Your task to perform on an android device: Find coffee shops on Maps Image 0: 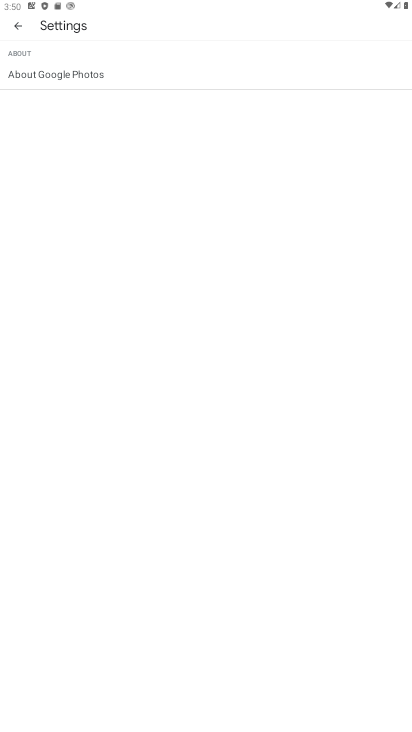
Step 0: press home button
Your task to perform on an android device: Find coffee shops on Maps Image 1: 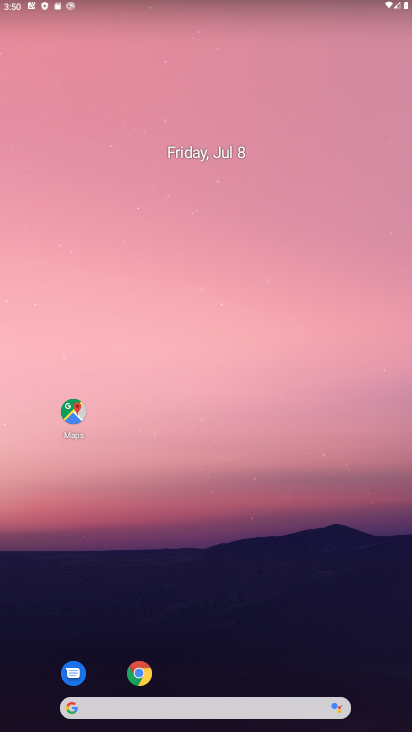
Step 1: click (74, 419)
Your task to perform on an android device: Find coffee shops on Maps Image 2: 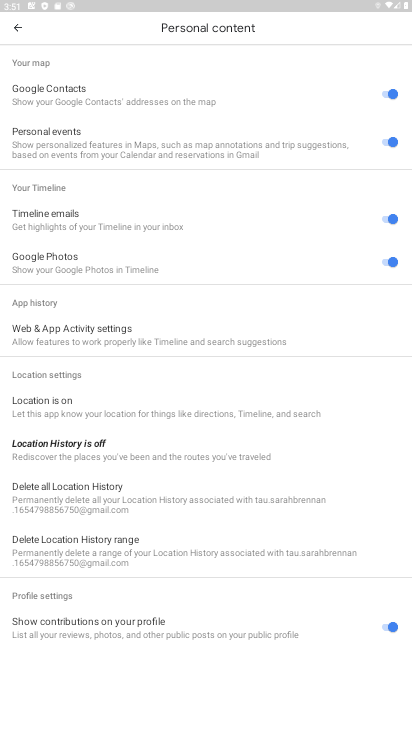
Step 2: click (18, 29)
Your task to perform on an android device: Find coffee shops on Maps Image 3: 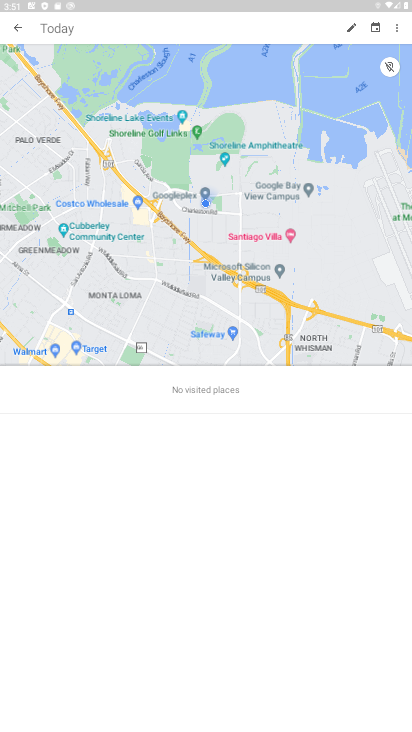
Step 3: click (58, 29)
Your task to perform on an android device: Find coffee shops on Maps Image 4: 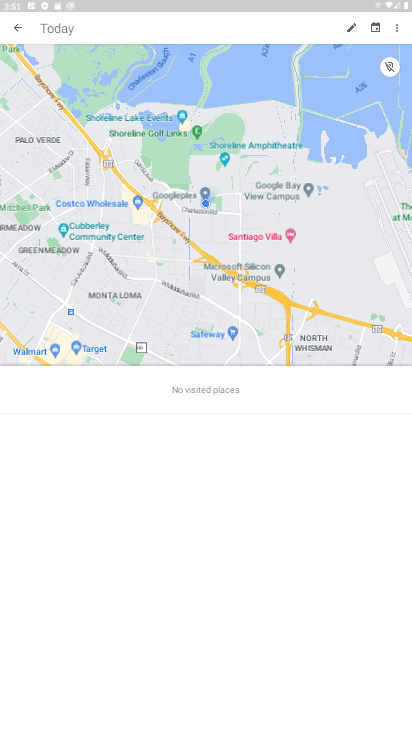
Step 4: click (21, 28)
Your task to perform on an android device: Find coffee shops on Maps Image 5: 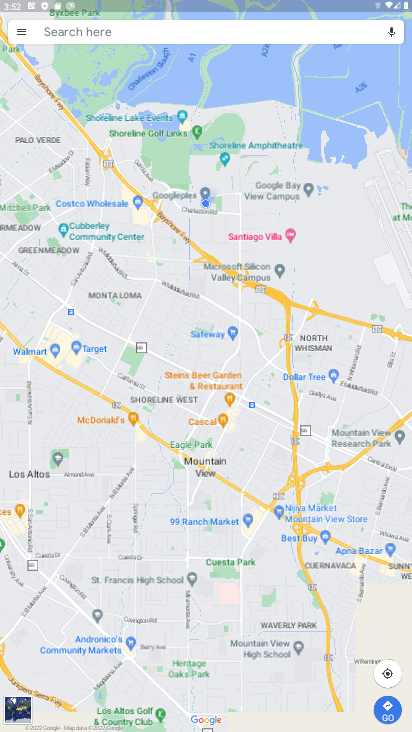
Step 5: click (73, 31)
Your task to perform on an android device: Find coffee shops on Maps Image 6: 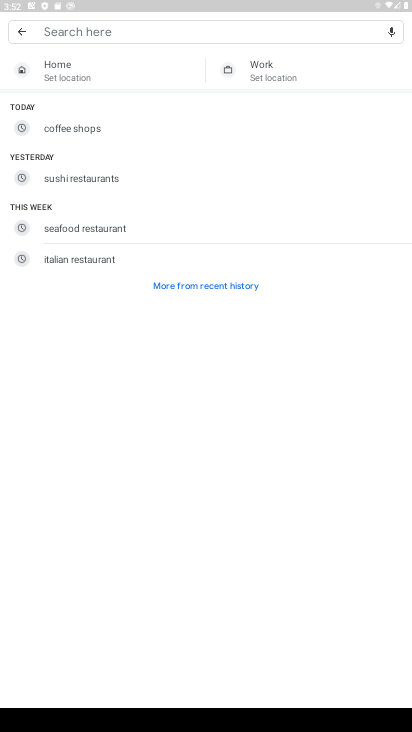
Step 6: click (59, 132)
Your task to perform on an android device: Find coffee shops on Maps Image 7: 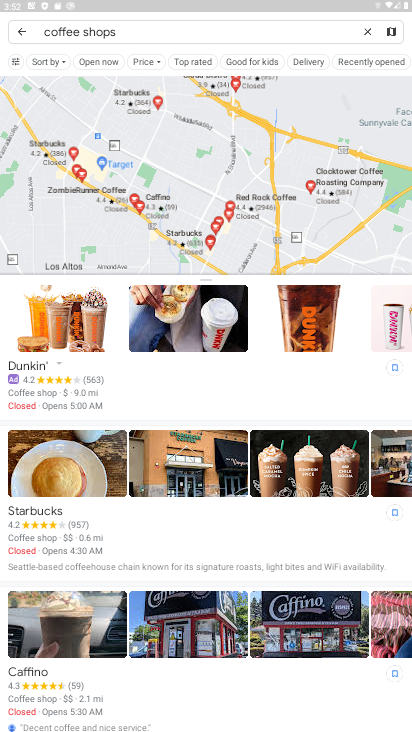
Step 7: task complete